Your task to perform on an android device: What's on my calendar today? Image 0: 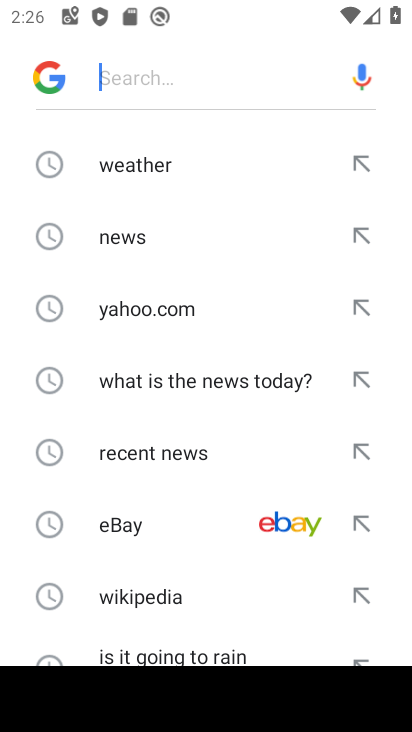
Step 0: press home button
Your task to perform on an android device: What's on my calendar today? Image 1: 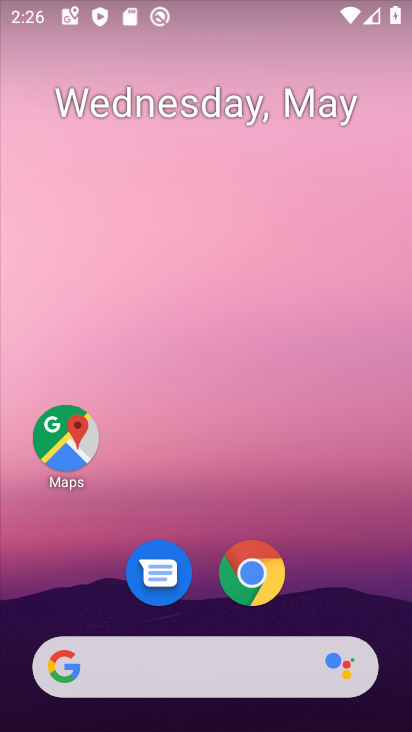
Step 1: drag from (336, 584) to (397, 89)
Your task to perform on an android device: What's on my calendar today? Image 2: 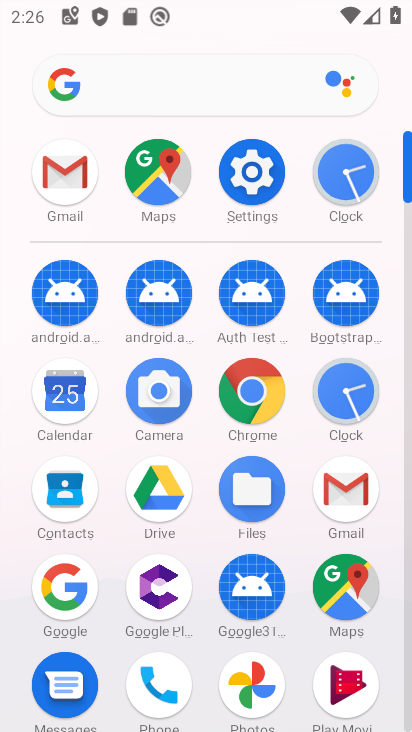
Step 2: click (49, 401)
Your task to perform on an android device: What's on my calendar today? Image 3: 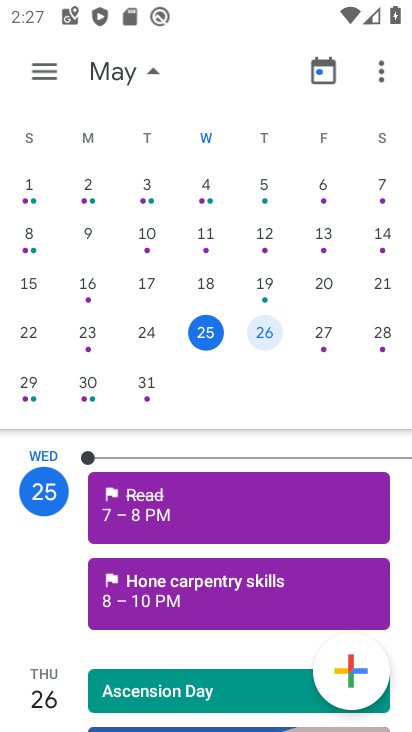
Step 3: click (206, 341)
Your task to perform on an android device: What's on my calendar today? Image 4: 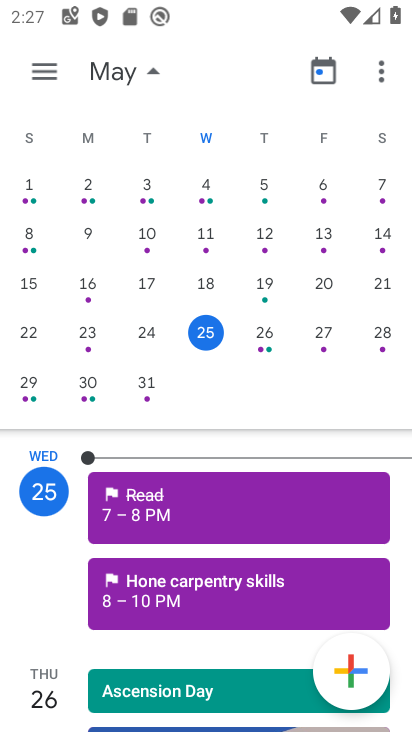
Step 4: task complete